Your task to perform on an android device: Open settings on Google Maps Image 0: 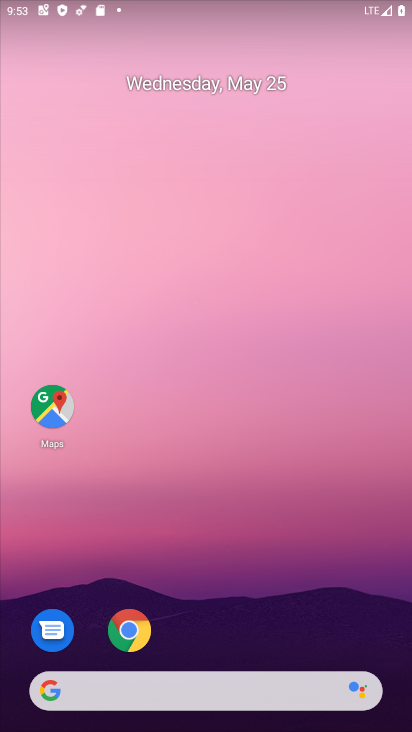
Step 0: click (48, 419)
Your task to perform on an android device: Open settings on Google Maps Image 1: 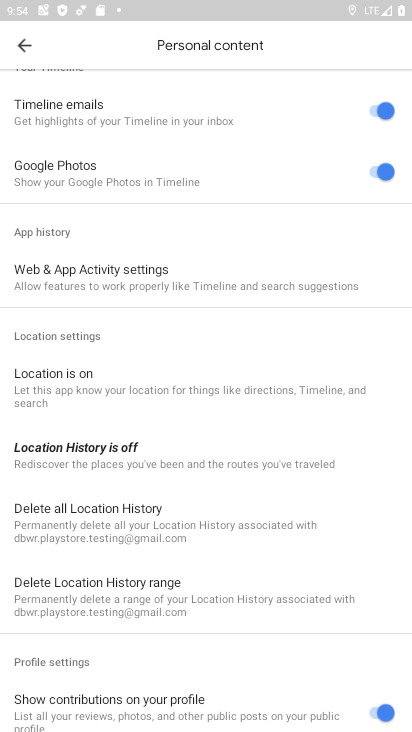
Step 1: press back button
Your task to perform on an android device: Open settings on Google Maps Image 2: 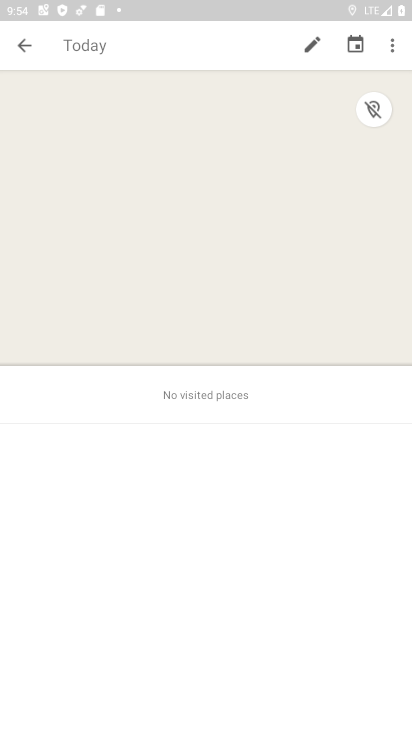
Step 2: press back button
Your task to perform on an android device: Open settings on Google Maps Image 3: 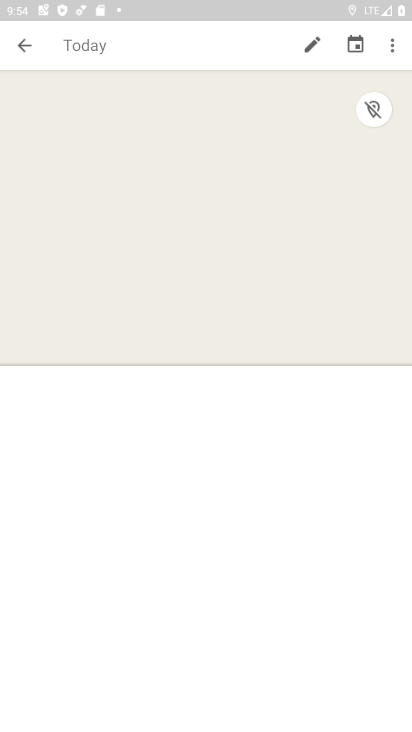
Step 3: press back button
Your task to perform on an android device: Open settings on Google Maps Image 4: 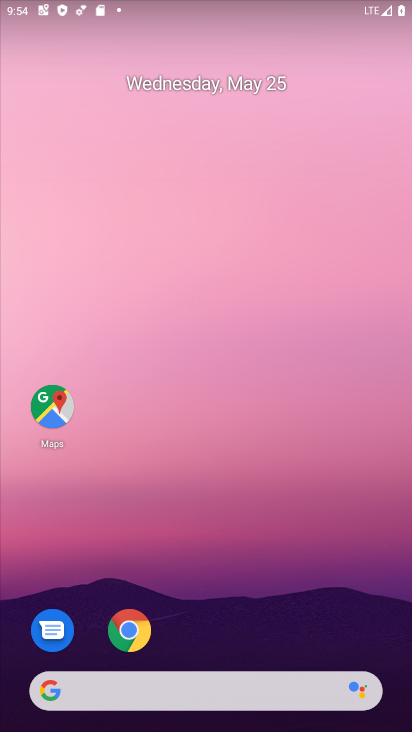
Step 4: click (67, 406)
Your task to perform on an android device: Open settings on Google Maps Image 5: 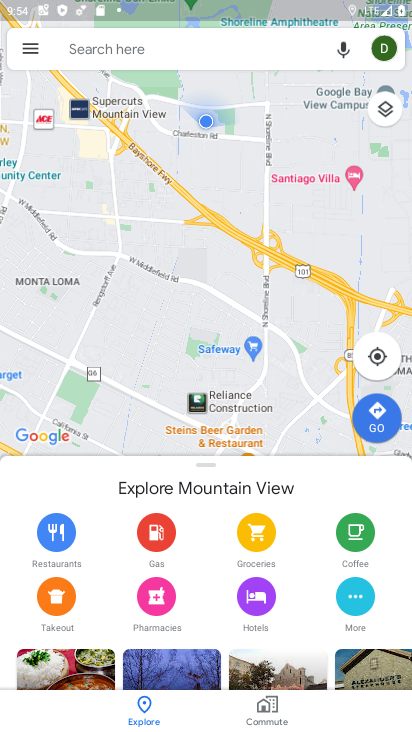
Step 5: task complete